Your task to perform on an android device: toggle sleep mode Image 0: 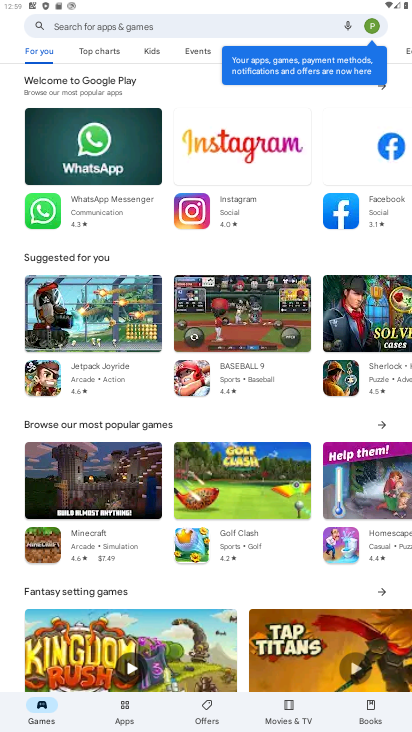
Step 0: press home button
Your task to perform on an android device: toggle sleep mode Image 1: 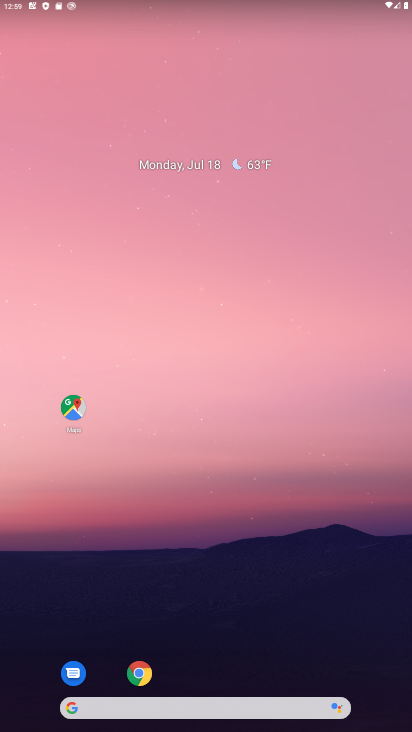
Step 1: click (226, 565)
Your task to perform on an android device: toggle sleep mode Image 2: 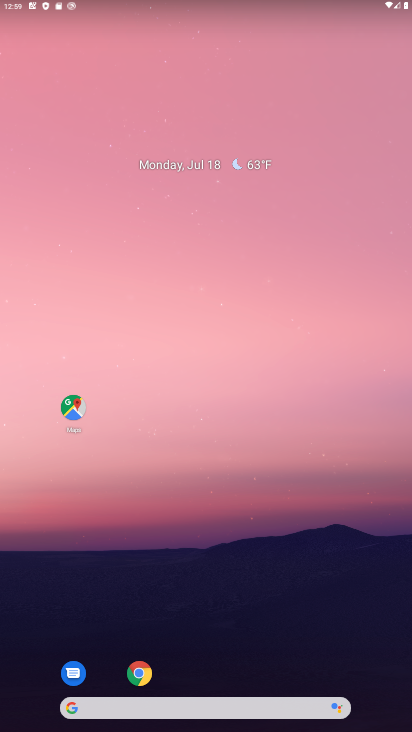
Step 2: drag from (253, 599) to (253, 25)
Your task to perform on an android device: toggle sleep mode Image 3: 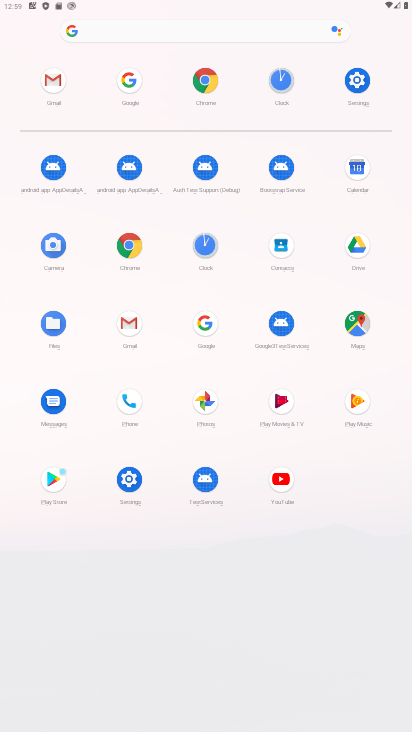
Step 3: click (354, 79)
Your task to perform on an android device: toggle sleep mode Image 4: 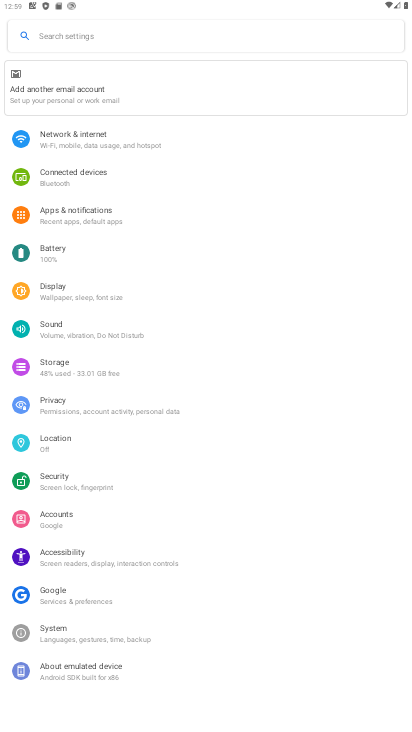
Step 4: task complete